Your task to perform on an android device: choose inbox layout in the gmail app Image 0: 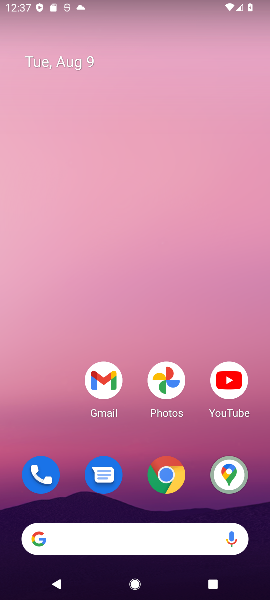
Step 0: click (108, 383)
Your task to perform on an android device: choose inbox layout in the gmail app Image 1: 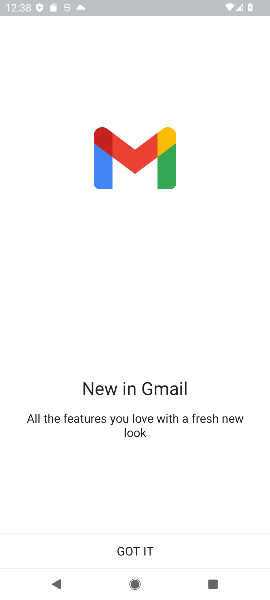
Step 1: click (104, 550)
Your task to perform on an android device: choose inbox layout in the gmail app Image 2: 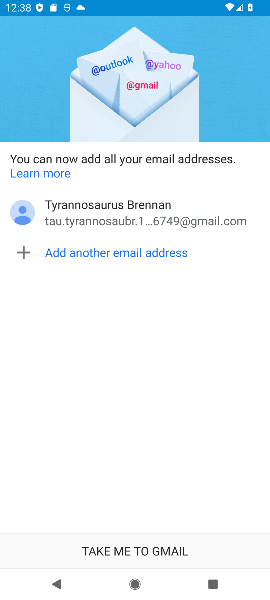
Step 2: click (115, 555)
Your task to perform on an android device: choose inbox layout in the gmail app Image 3: 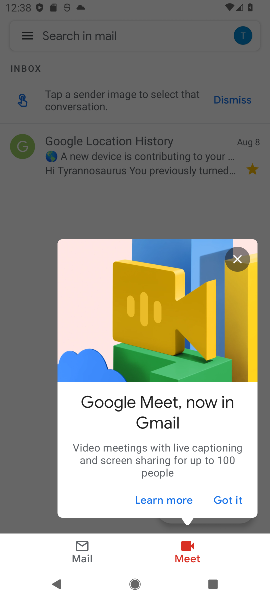
Step 3: click (228, 499)
Your task to perform on an android device: choose inbox layout in the gmail app Image 4: 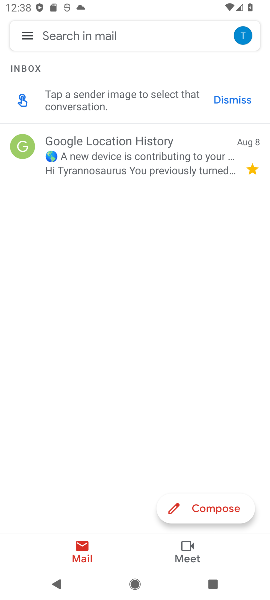
Step 4: click (32, 36)
Your task to perform on an android device: choose inbox layout in the gmail app Image 5: 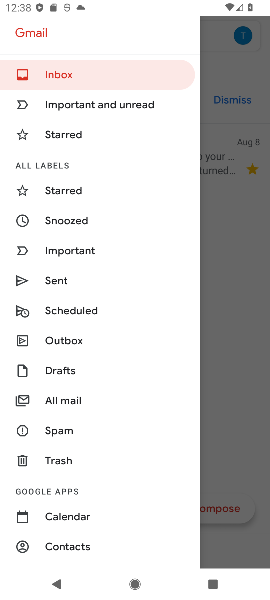
Step 5: drag from (52, 535) to (56, 250)
Your task to perform on an android device: choose inbox layout in the gmail app Image 6: 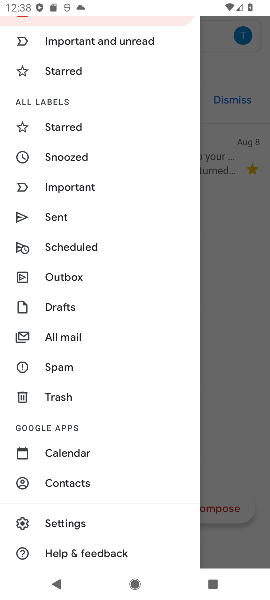
Step 6: click (79, 529)
Your task to perform on an android device: choose inbox layout in the gmail app Image 7: 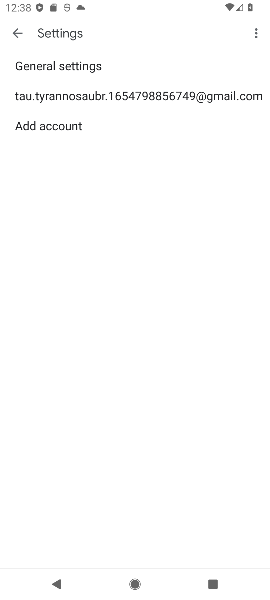
Step 7: click (80, 94)
Your task to perform on an android device: choose inbox layout in the gmail app Image 8: 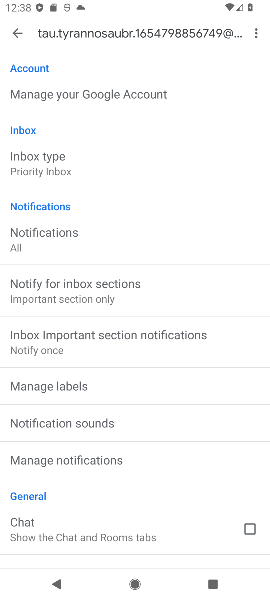
Step 8: click (32, 164)
Your task to perform on an android device: choose inbox layout in the gmail app Image 9: 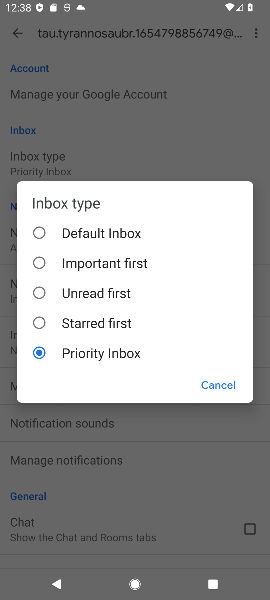
Step 9: click (63, 236)
Your task to perform on an android device: choose inbox layout in the gmail app Image 10: 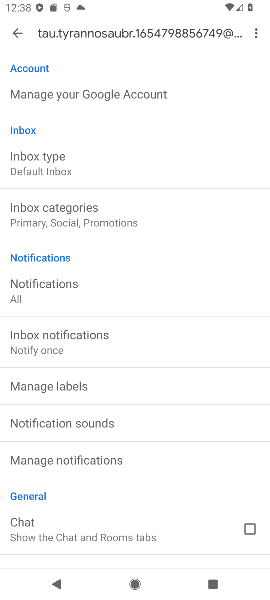
Step 10: task complete